Your task to perform on an android device: Set the phone to "Do not disturb". Image 0: 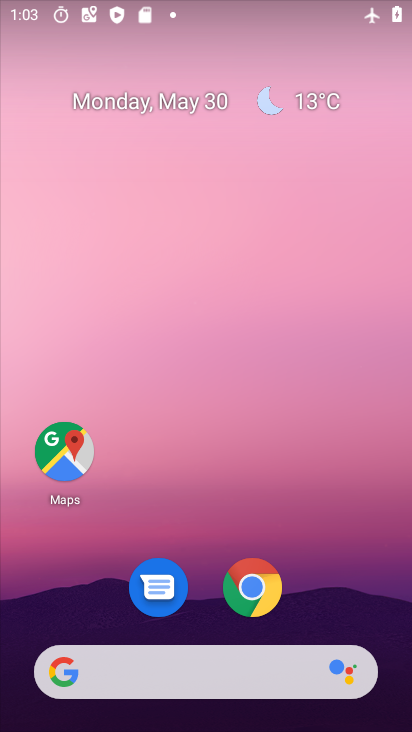
Step 0: drag from (248, 7) to (304, 465)
Your task to perform on an android device: Set the phone to "Do not disturb". Image 1: 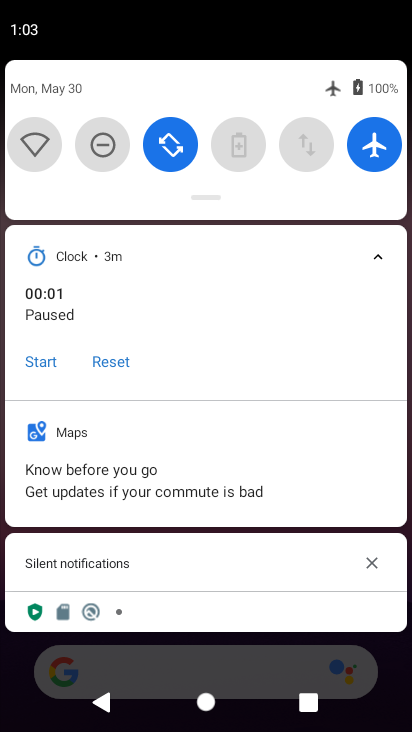
Step 1: click (108, 145)
Your task to perform on an android device: Set the phone to "Do not disturb". Image 2: 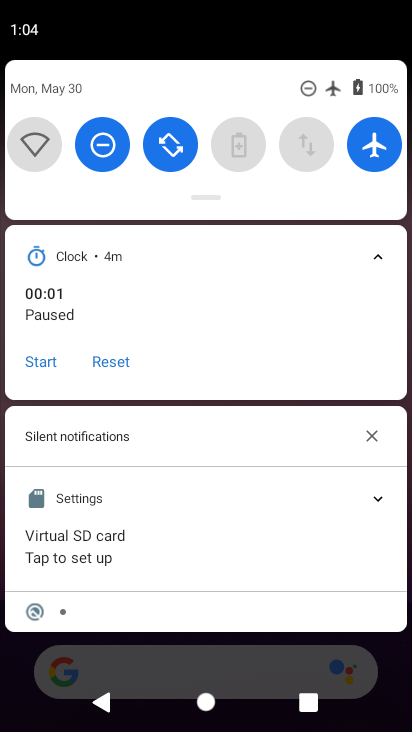
Step 2: task complete